Your task to perform on an android device: open app "Walmart Shopping & Grocery" Image 0: 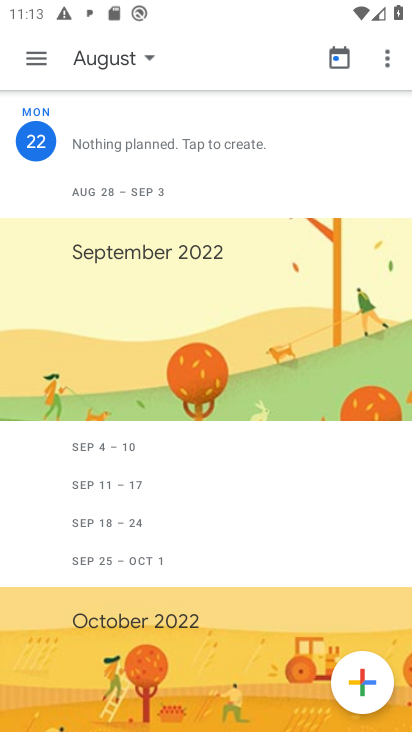
Step 0: press home button
Your task to perform on an android device: open app "Walmart Shopping & Grocery" Image 1: 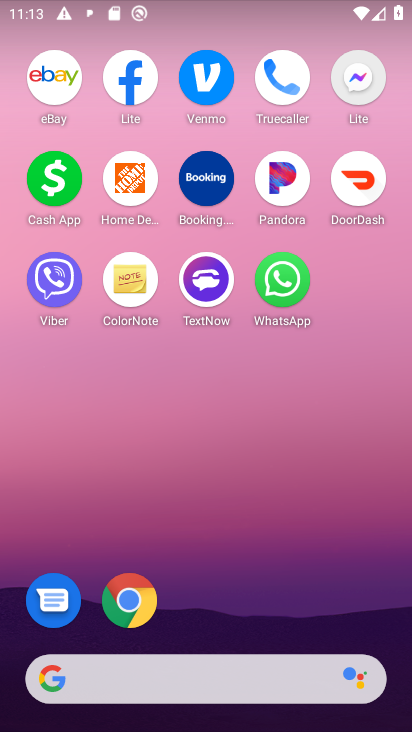
Step 1: drag from (210, 603) to (197, 187)
Your task to perform on an android device: open app "Walmart Shopping & Grocery" Image 2: 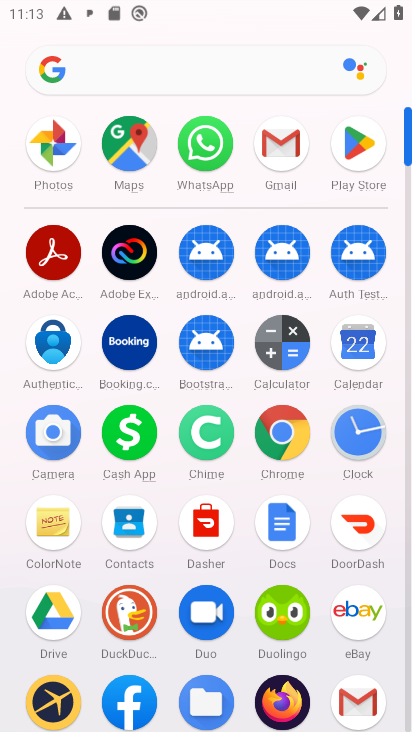
Step 2: click (352, 145)
Your task to perform on an android device: open app "Walmart Shopping & Grocery" Image 3: 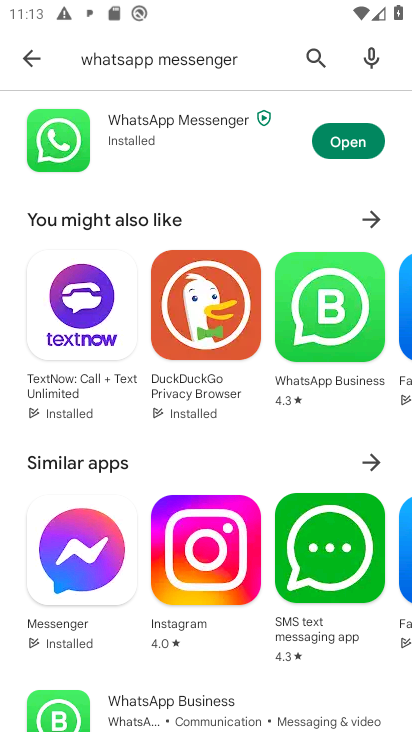
Step 3: click (318, 49)
Your task to perform on an android device: open app "Walmart Shopping & Grocery" Image 4: 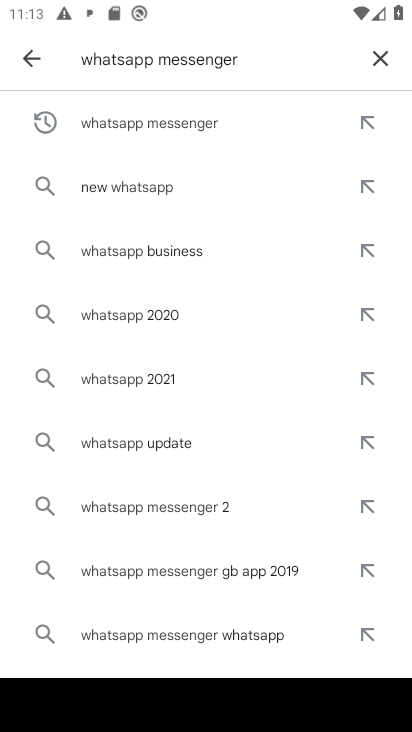
Step 4: click (376, 55)
Your task to perform on an android device: open app "Walmart Shopping & Grocery" Image 5: 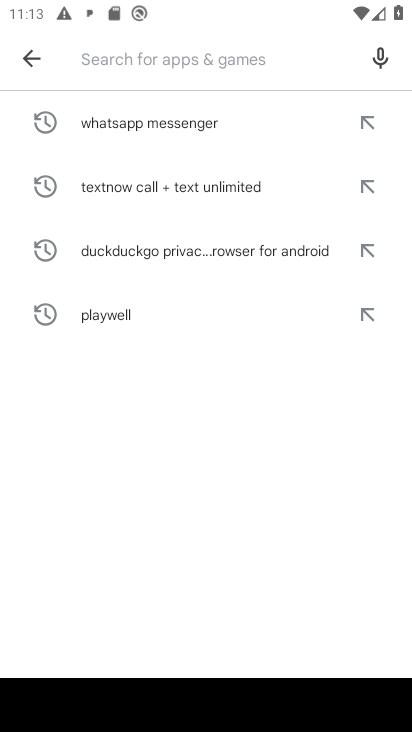
Step 5: type "Walmart Shopping & Grocer"
Your task to perform on an android device: open app "Walmart Shopping & Grocery" Image 6: 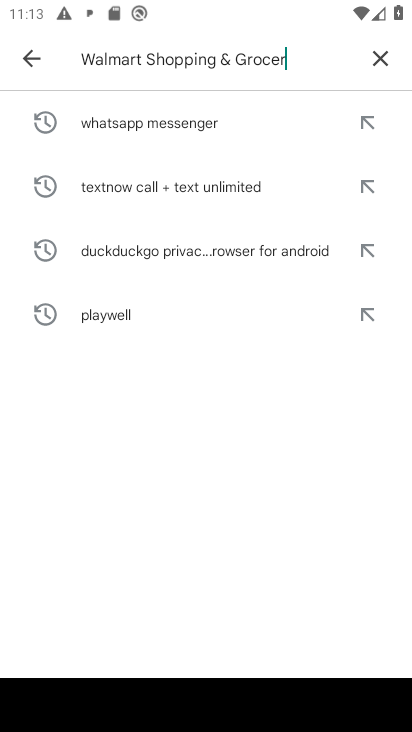
Step 6: type ""
Your task to perform on an android device: open app "Walmart Shopping & Grocery" Image 7: 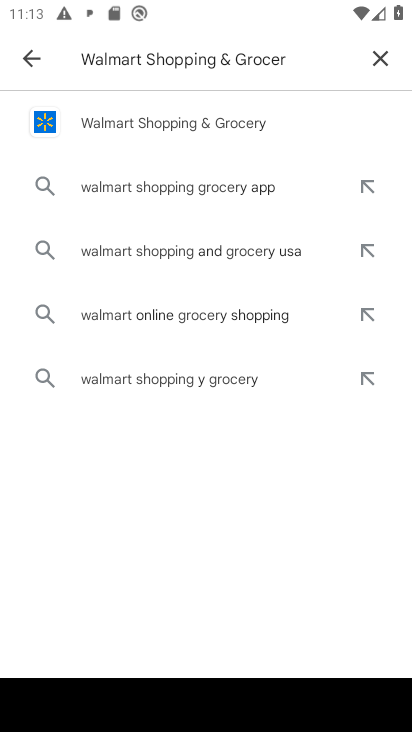
Step 7: click (240, 112)
Your task to perform on an android device: open app "Walmart Shopping & Grocery" Image 8: 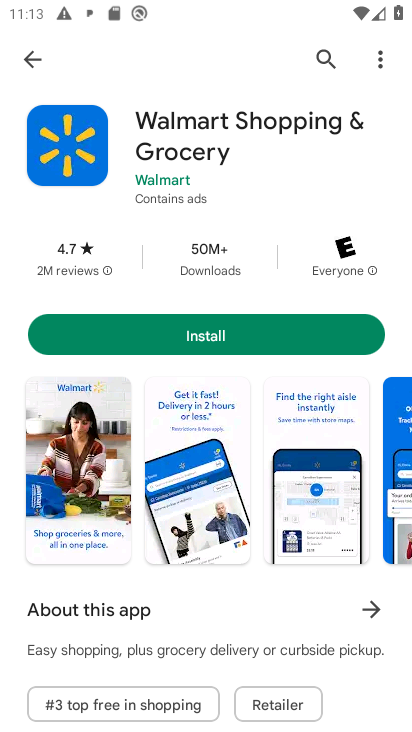
Step 8: task complete